Your task to perform on an android device: allow notifications from all sites in the chrome app Image 0: 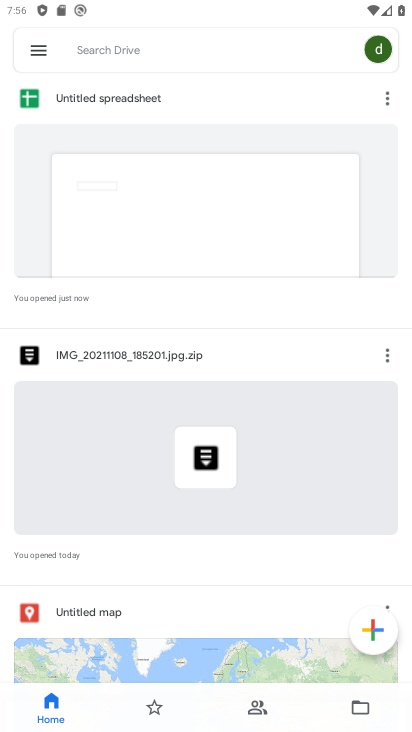
Step 0: drag from (203, 609) to (236, 86)
Your task to perform on an android device: allow notifications from all sites in the chrome app Image 1: 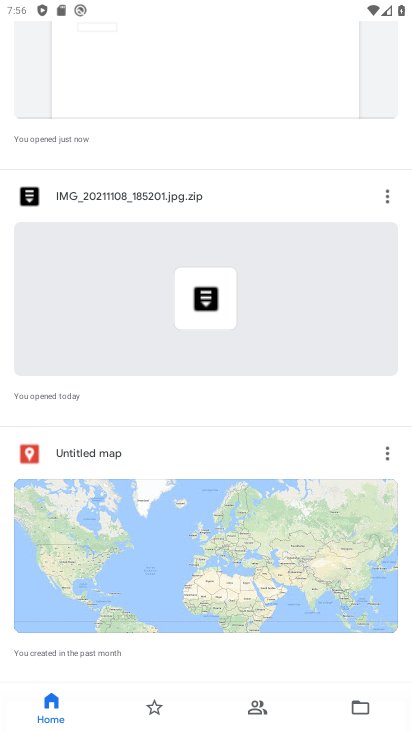
Step 1: drag from (149, 172) to (369, 651)
Your task to perform on an android device: allow notifications from all sites in the chrome app Image 2: 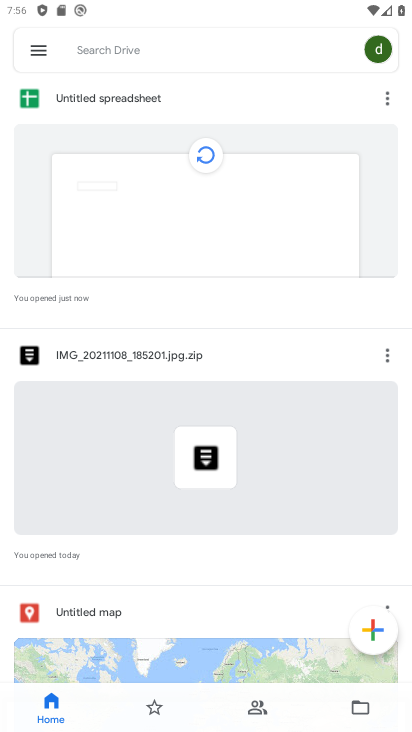
Step 2: press home button
Your task to perform on an android device: allow notifications from all sites in the chrome app Image 3: 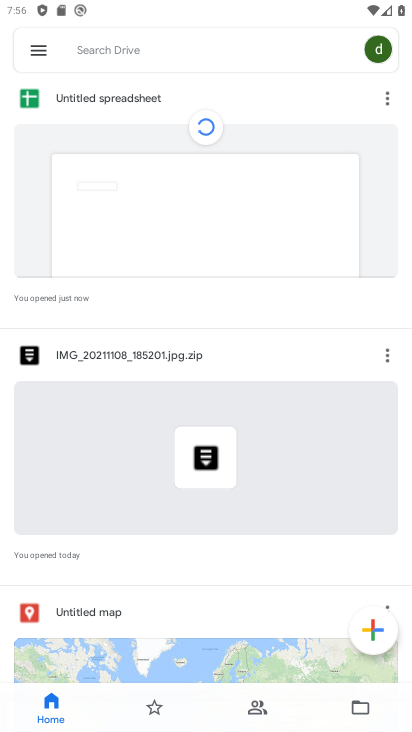
Step 3: click (374, 351)
Your task to perform on an android device: allow notifications from all sites in the chrome app Image 4: 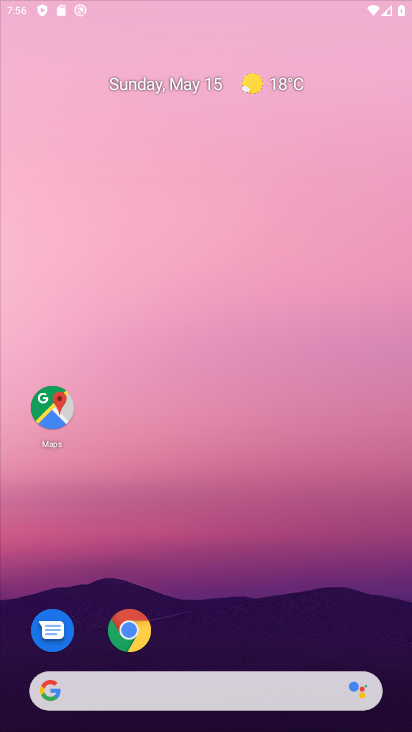
Step 4: drag from (267, 579) to (231, 42)
Your task to perform on an android device: allow notifications from all sites in the chrome app Image 5: 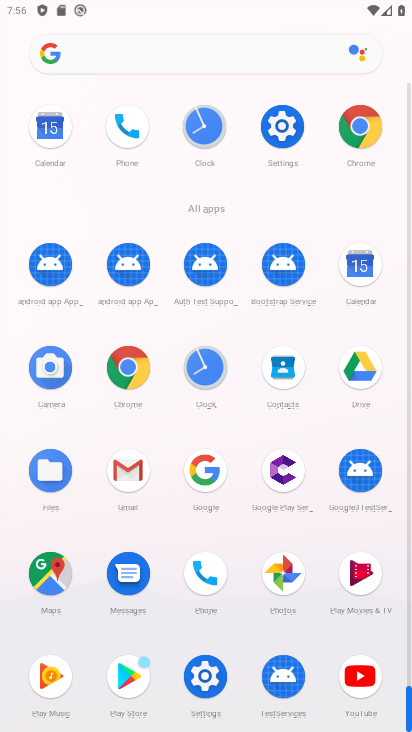
Step 5: click (128, 364)
Your task to perform on an android device: allow notifications from all sites in the chrome app Image 6: 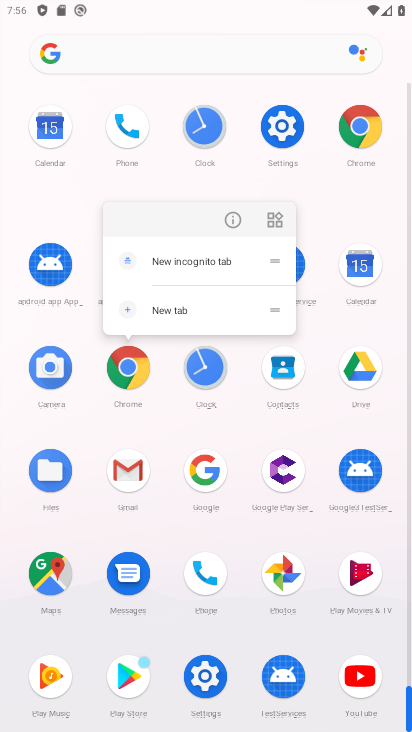
Step 6: click (226, 215)
Your task to perform on an android device: allow notifications from all sites in the chrome app Image 7: 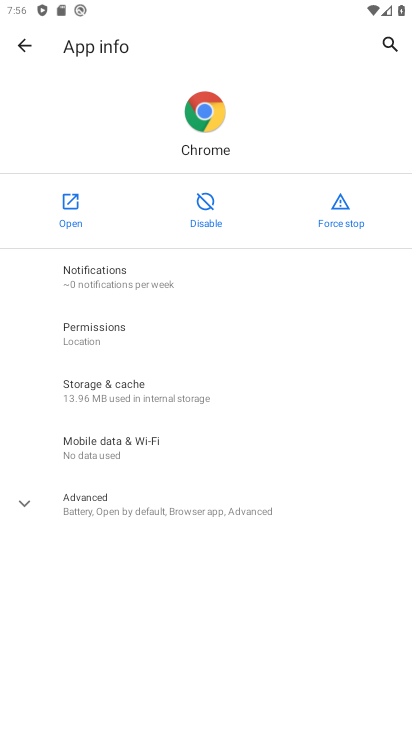
Step 7: click (82, 213)
Your task to perform on an android device: allow notifications from all sites in the chrome app Image 8: 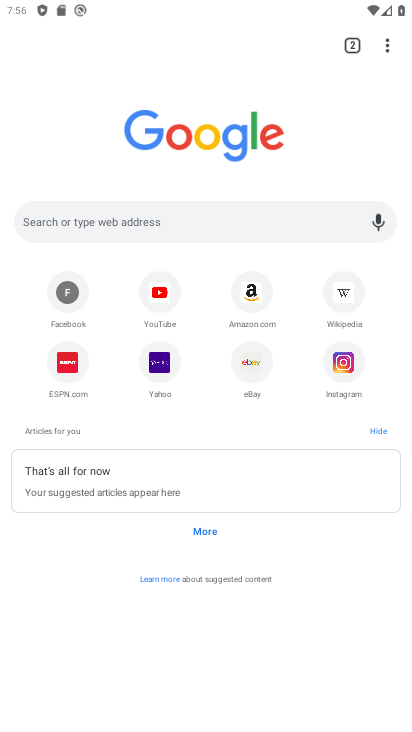
Step 8: click (384, 43)
Your task to perform on an android device: allow notifications from all sites in the chrome app Image 9: 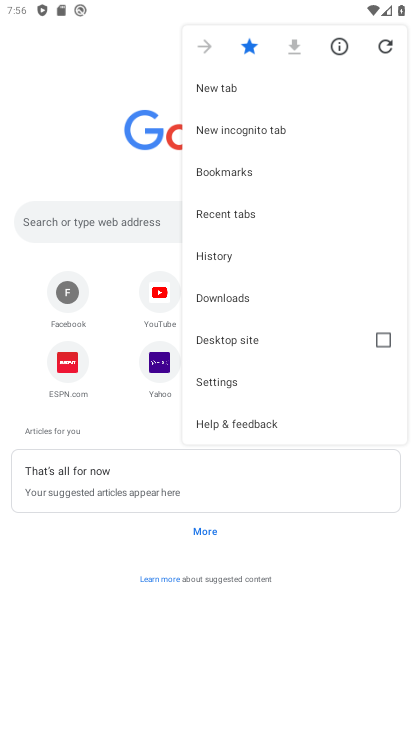
Step 9: click (253, 394)
Your task to perform on an android device: allow notifications from all sites in the chrome app Image 10: 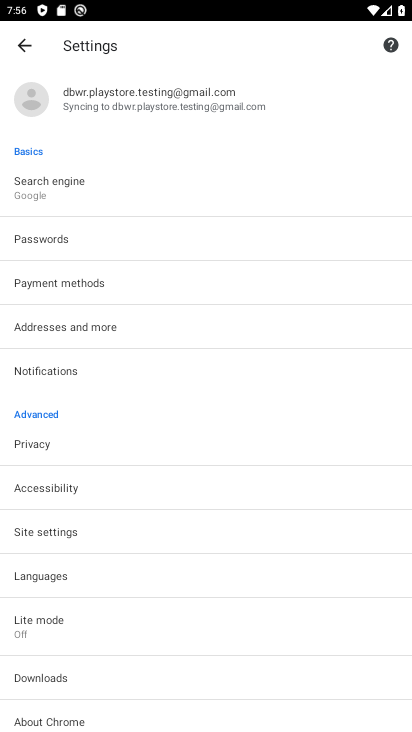
Step 10: click (73, 532)
Your task to perform on an android device: allow notifications from all sites in the chrome app Image 11: 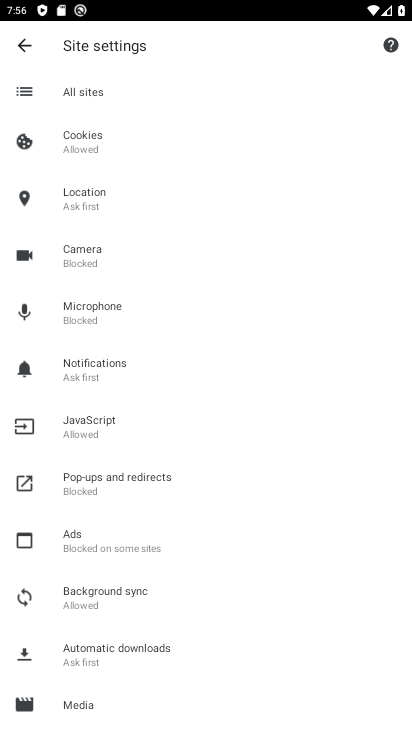
Step 11: click (101, 374)
Your task to perform on an android device: allow notifications from all sites in the chrome app Image 12: 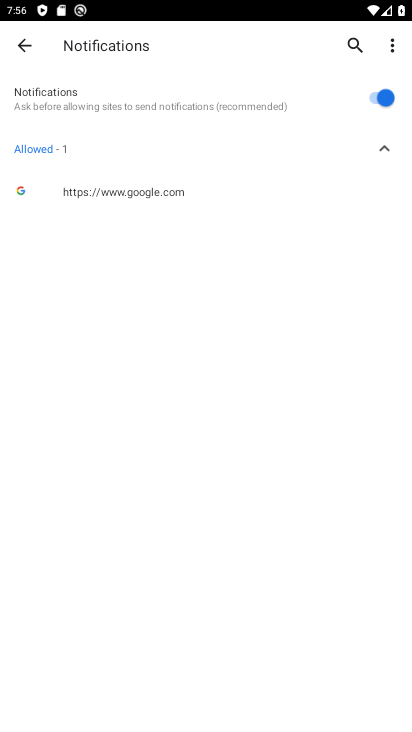
Step 12: task complete